Your task to perform on an android device: Go to network settings Image 0: 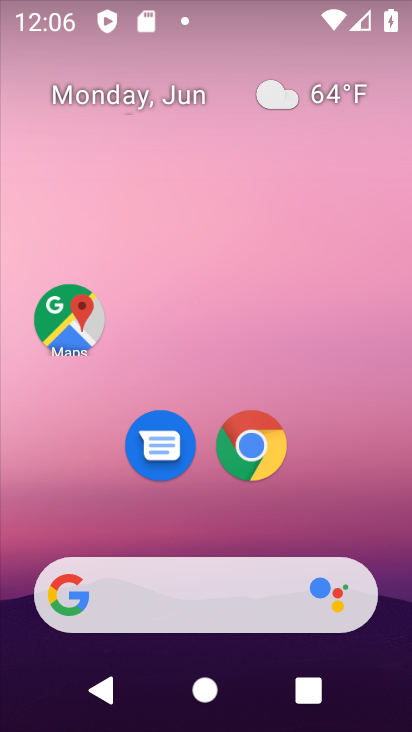
Step 0: drag from (262, 613) to (278, 2)
Your task to perform on an android device: Go to network settings Image 1: 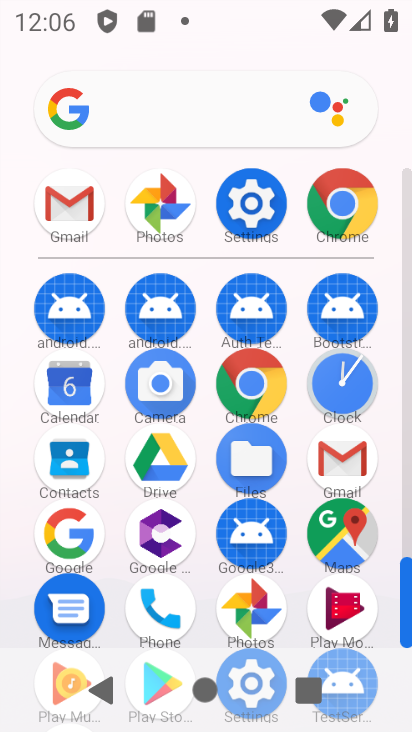
Step 1: click (264, 187)
Your task to perform on an android device: Go to network settings Image 2: 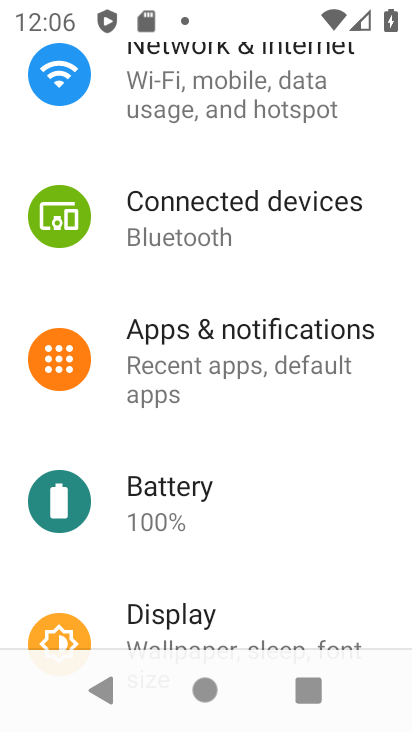
Step 2: drag from (219, 183) to (292, 568)
Your task to perform on an android device: Go to network settings Image 3: 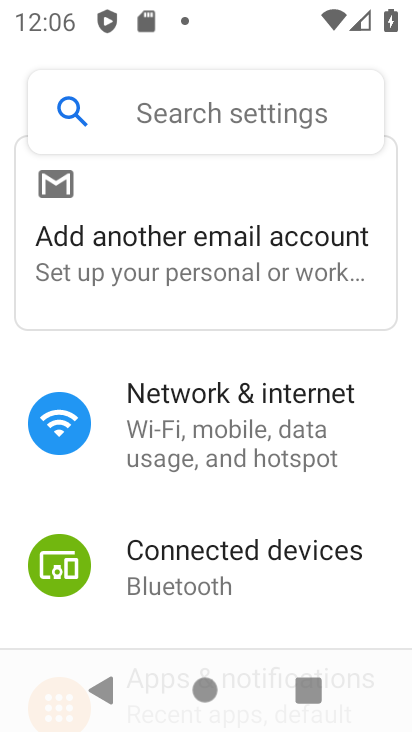
Step 3: click (287, 417)
Your task to perform on an android device: Go to network settings Image 4: 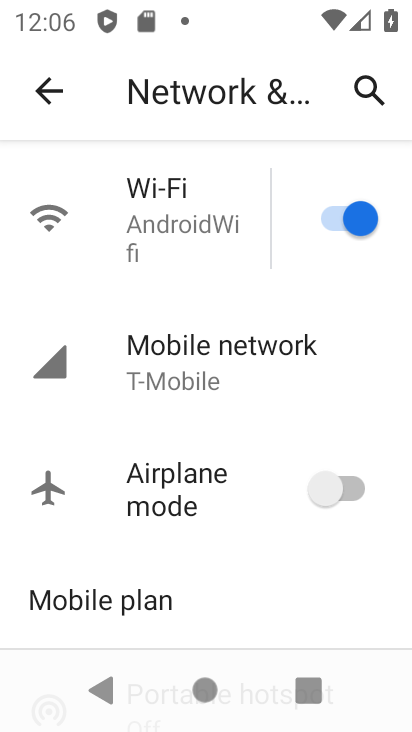
Step 4: task complete